Your task to perform on an android device: Is it going to rain tomorrow? Image 0: 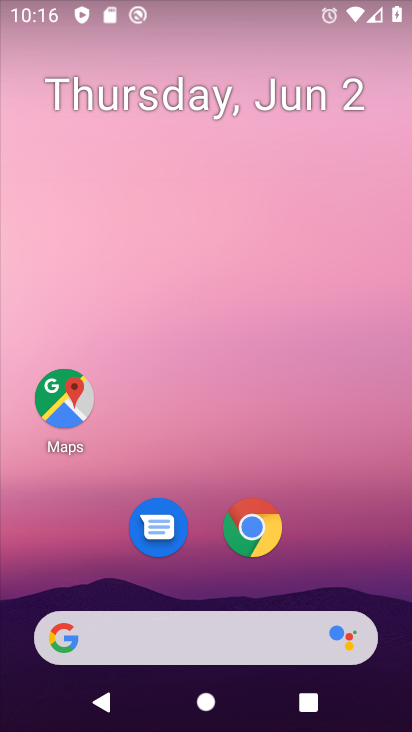
Step 0: drag from (40, 262) to (382, 209)
Your task to perform on an android device: Is it going to rain tomorrow? Image 1: 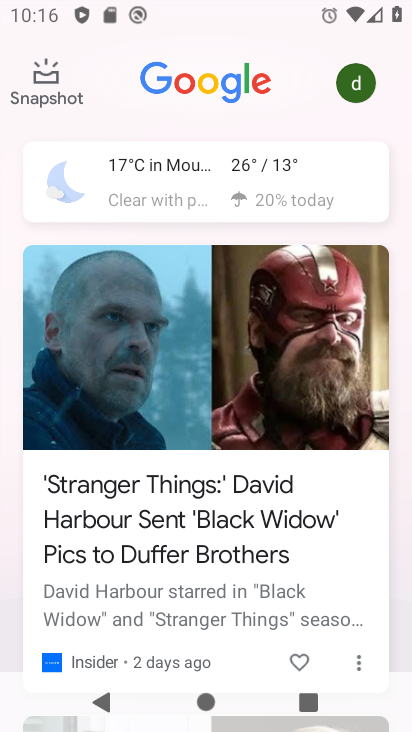
Step 1: click (70, 184)
Your task to perform on an android device: Is it going to rain tomorrow? Image 2: 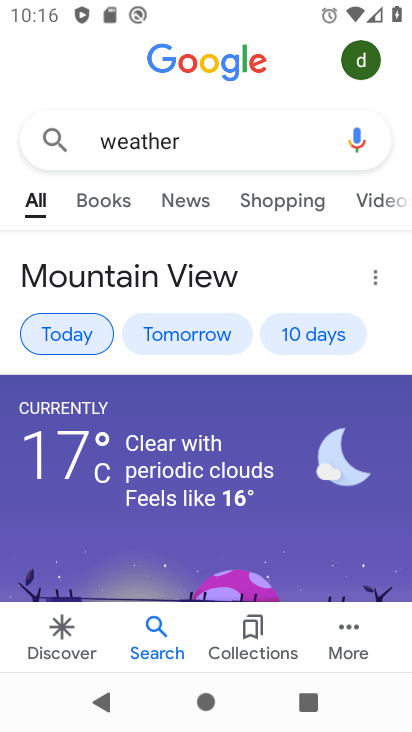
Step 2: click (178, 347)
Your task to perform on an android device: Is it going to rain tomorrow? Image 3: 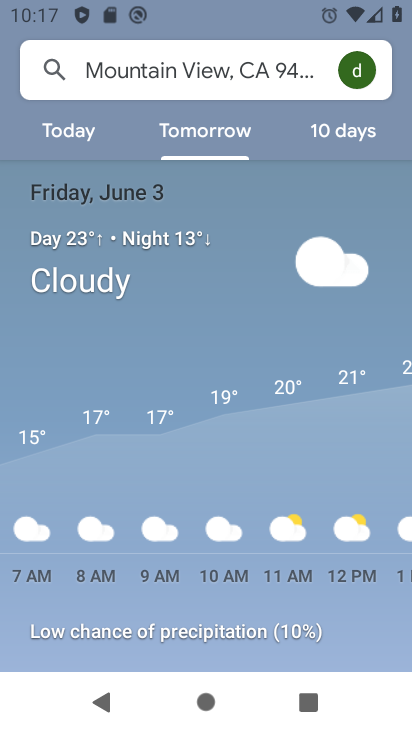
Step 3: task complete